Your task to perform on an android device: delete location history Image 0: 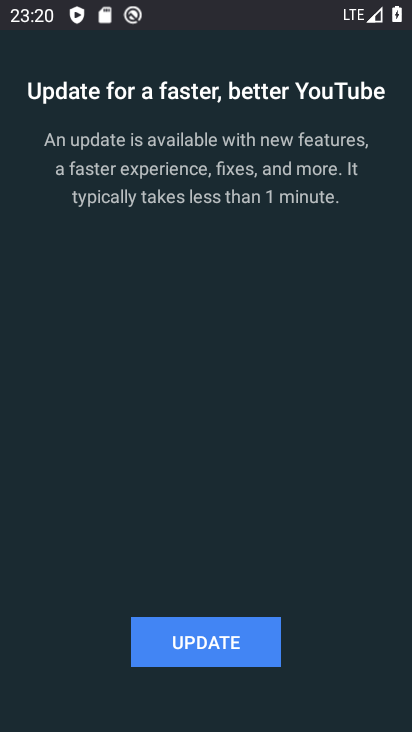
Step 0: press home button
Your task to perform on an android device: delete location history Image 1: 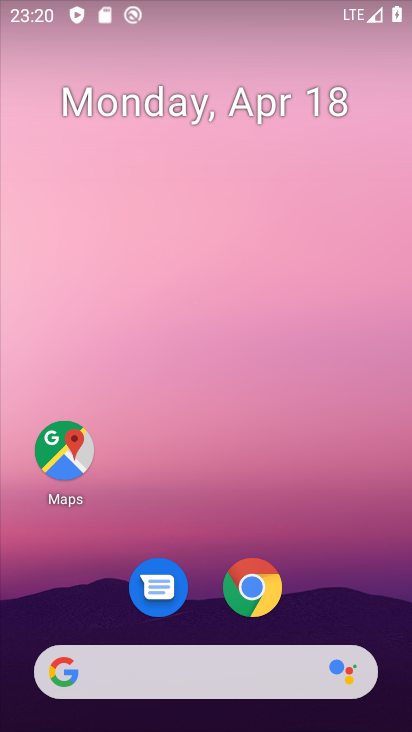
Step 1: drag from (333, 579) to (334, 145)
Your task to perform on an android device: delete location history Image 2: 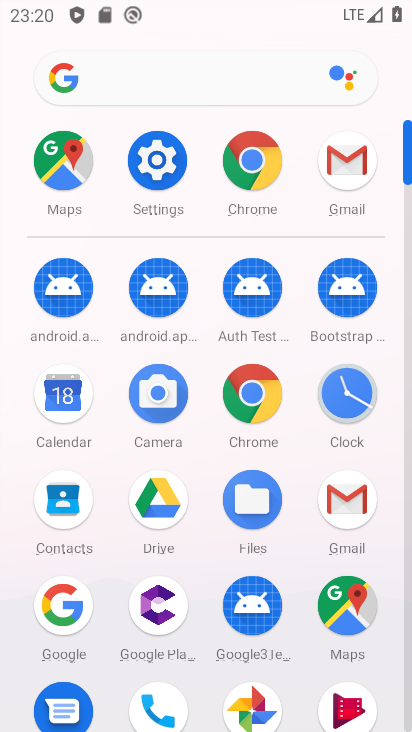
Step 2: click (337, 599)
Your task to perform on an android device: delete location history Image 3: 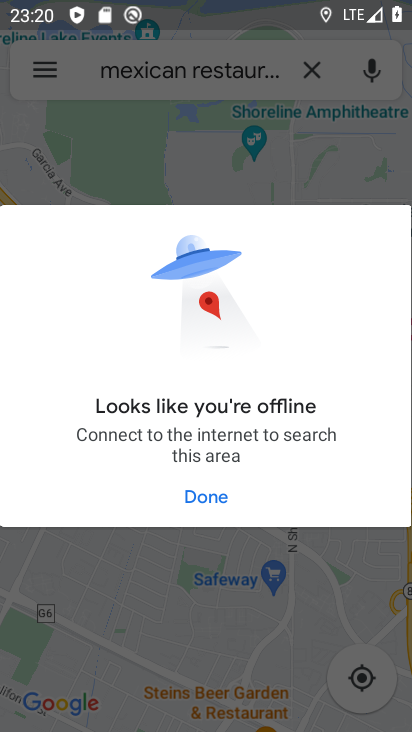
Step 3: click (217, 506)
Your task to perform on an android device: delete location history Image 4: 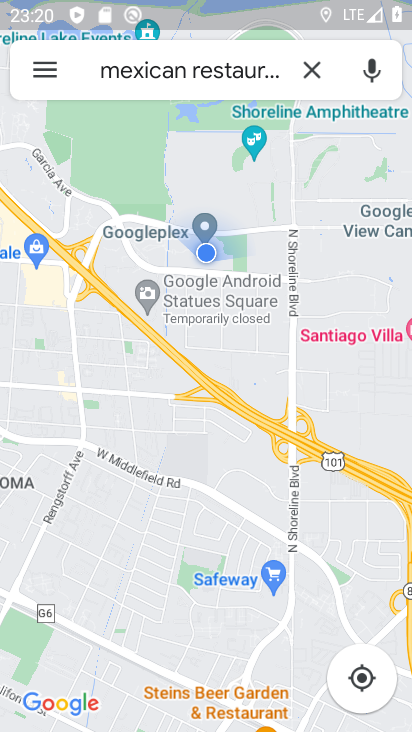
Step 4: click (30, 65)
Your task to perform on an android device: delete location history Image 5: 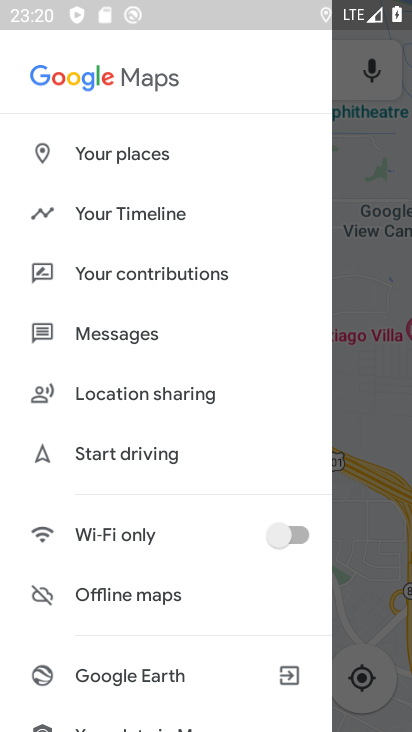
Step 5: click (157, 210)
Your task to perform on an android device: delete location history Image 6: 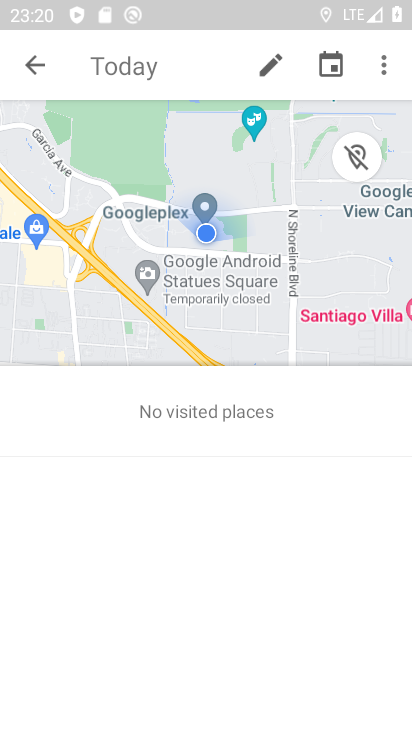
Step 6: click (384, 74)
Your task to perform on an android device: delete location history Image 7: 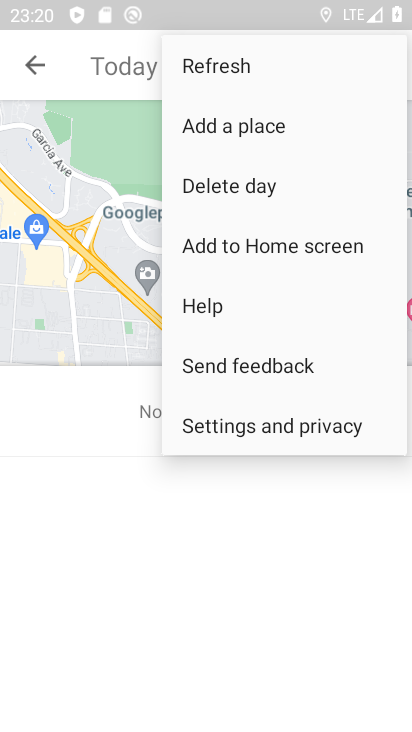
Step 7: click (256, 426)
Your task to perform on an android device: delete location history Image 8: 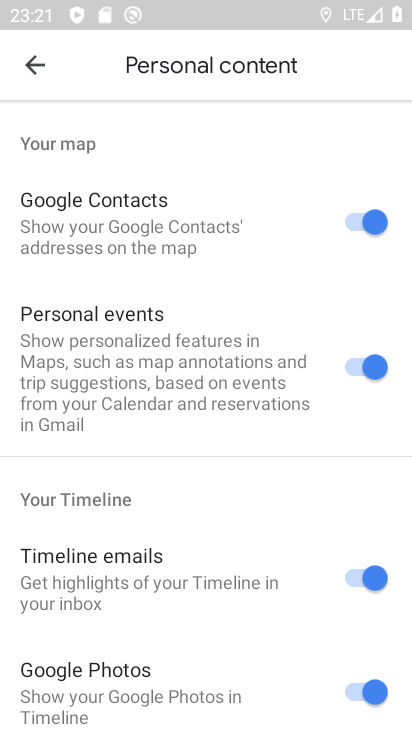
Step 8: drag from (199, 677) to (253, 246)
Your task to perform on an android device: delete location history Image 9: 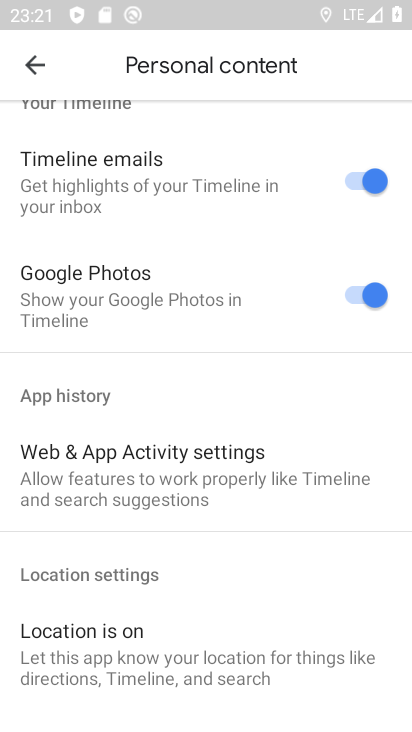
Step 9: drag from (275, 591) to (298, 214)
Your task to perform on an android device: delete location history Image 10: 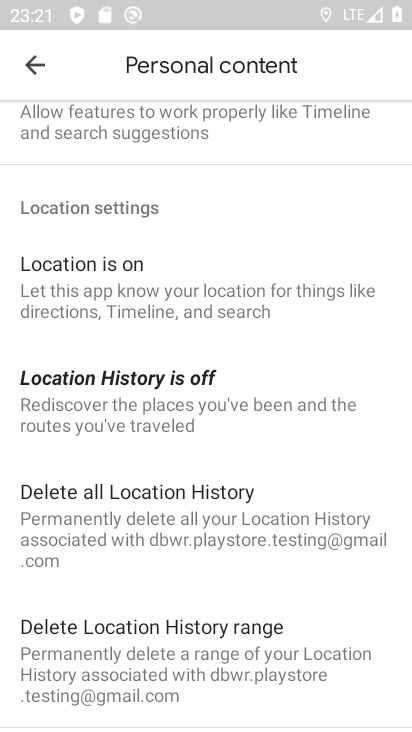
Step 10: drag from (300, 546) to (299, 191)
Your task to perform on an android device: delete location history Image 11: 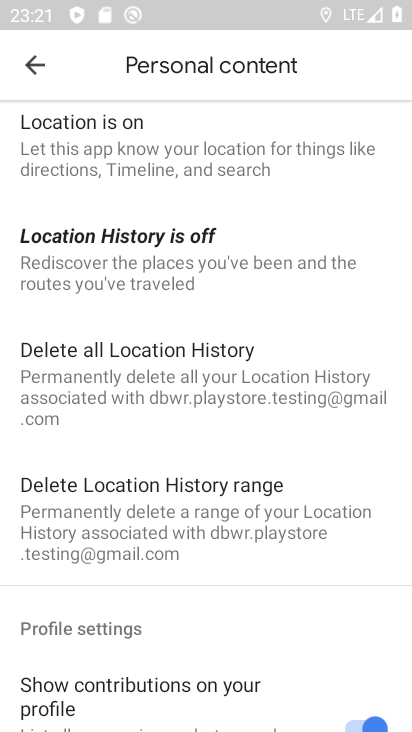
Step 11: drag from (275, 616) to (285, 255)
Your task to perform on an android device: delete location history Image 12: 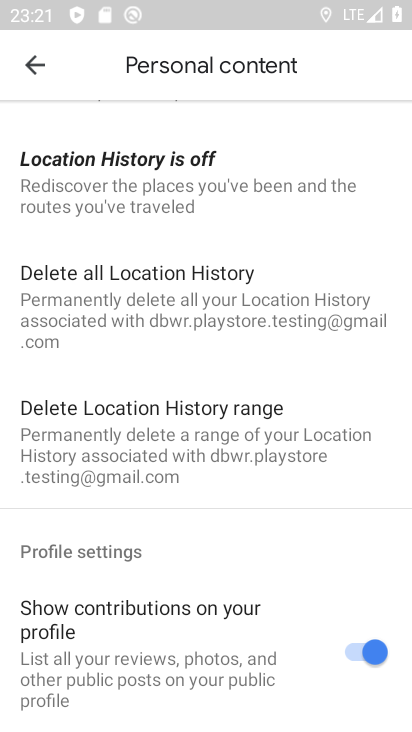
Step 12: click (132, 276)
Your task to perform on an android device: delete location history Image 13: 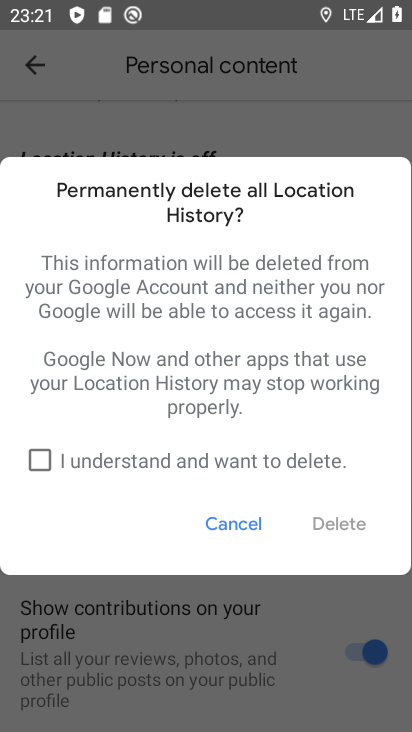
Step 13: click (100, 458)
Your task to perform on an android device: delete location history Image 14: 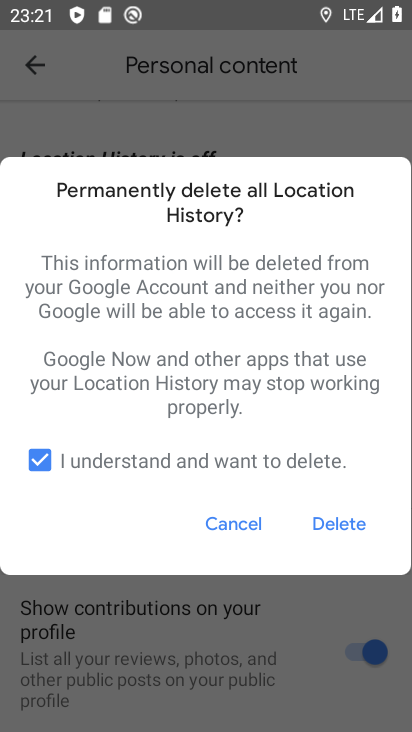
Step 14: click (336, 523)
Your task to perform on an android device: delete location history Image 15: 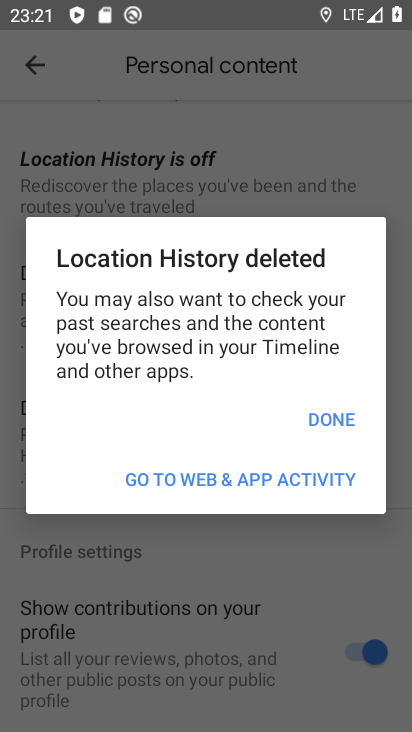
Step 15: click (340, 425)
Your task to perform on an android device: delete location history Image 16: 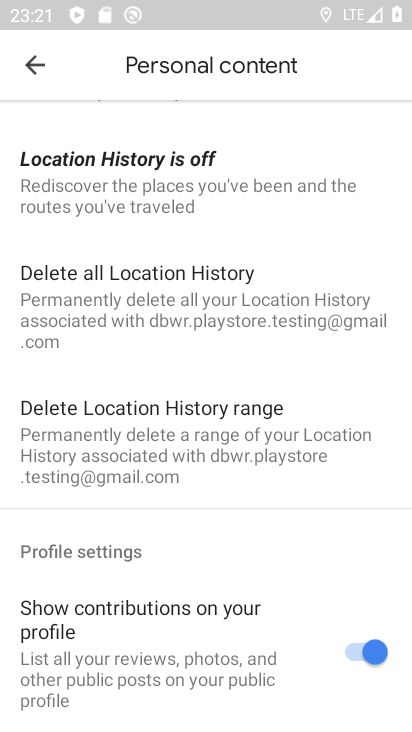
Step 16: task complete